Your task to perform on an android device: move an email to a new category in the gmail app Image 0: 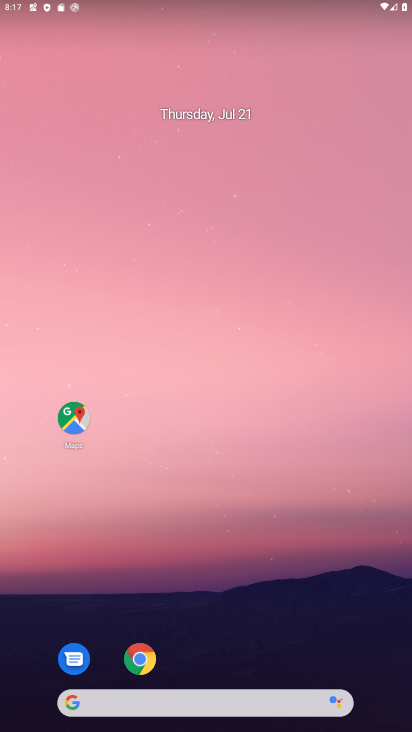
Step 0: drag from (220, 667) to (290, 119)
Your task to perform on an android device: move an email to a new category in the gmail app Image 1: 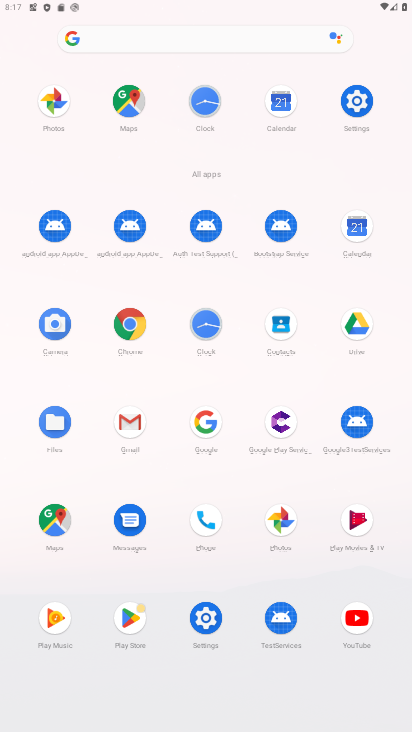
Step 1: click (128, 414)
Your task to perform on an android device: move an email to a new category in the gmail app Image 2: 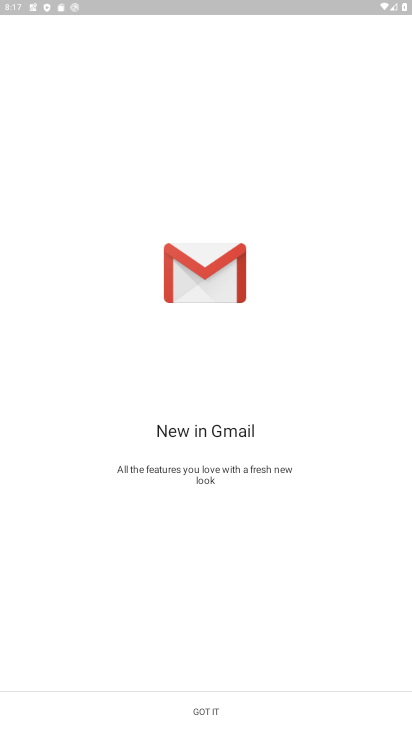
Step 2: click (207, 708)
Your task to perform on an android device: move an email to a new category in the gmail app Image 3: 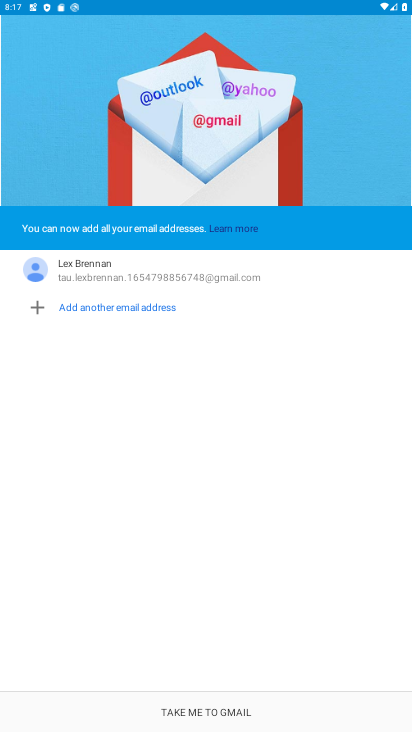
Step 3: click (207, 708)
Your task to perform on an android device: move an email to a new category in the gmail app Image 4: 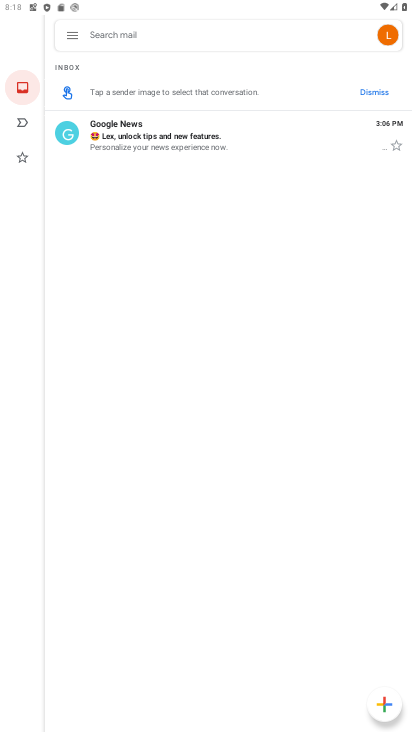
Step 4: click (61, 134)
Your task to perform on an android device: move an email to a new category in the gmail app Image 5: 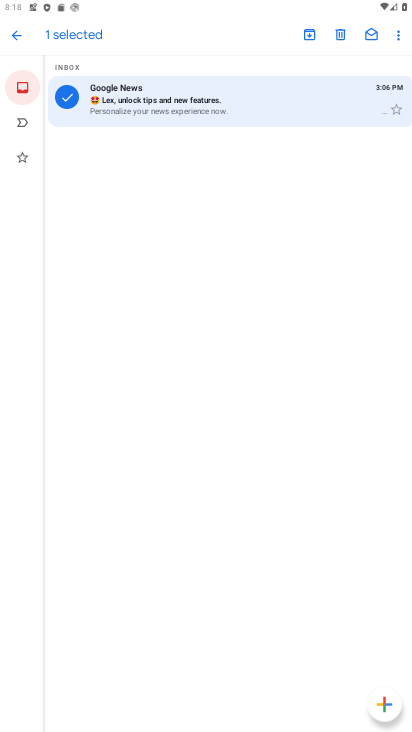
Step 5: click (399, 33)
Your task to perform on an android device: move an email to a new category in the gmail app Image 6: 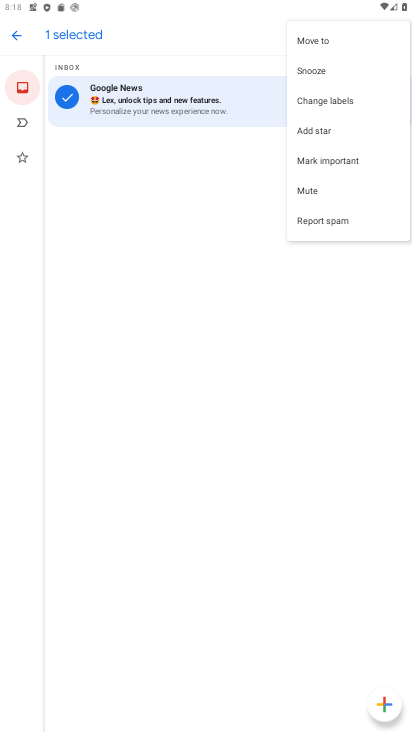
Step 6: click (333, 36)
Your task to perform on an android device: move an email to a new category in the gmail app Image 7: 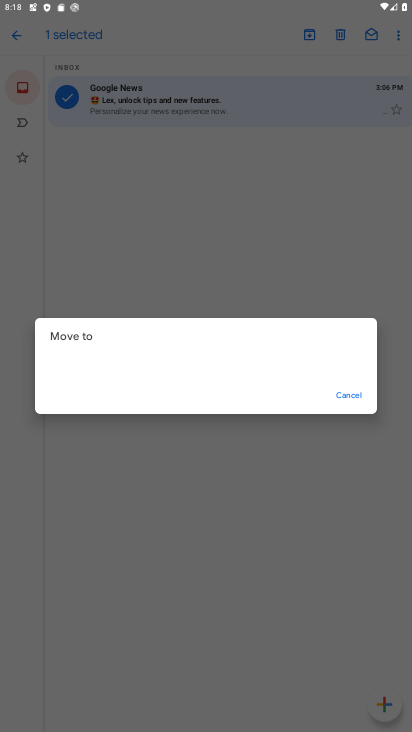
Step 7: click (350, 386)
Your task to perform on an android device: move an email to a new category in the gmail app Image 8: 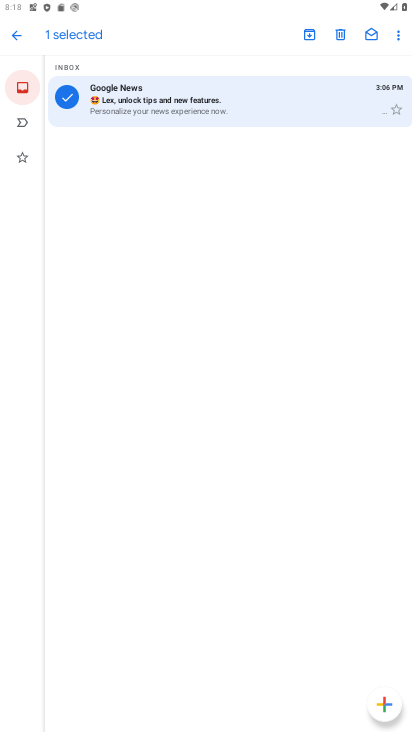
Step 8: task complete